Your task to perform on an android device: Go to ESPN.com Image 0: 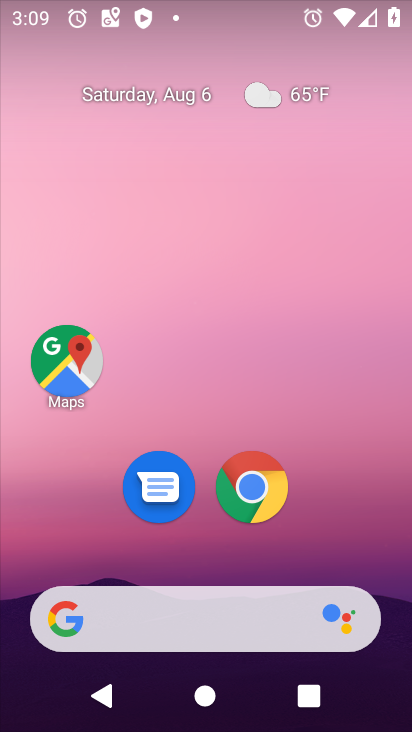
Step 0: drag from (235, 621) to (207, 25)
Your task to perform on an android device: Go to ESPN.com Image 1: 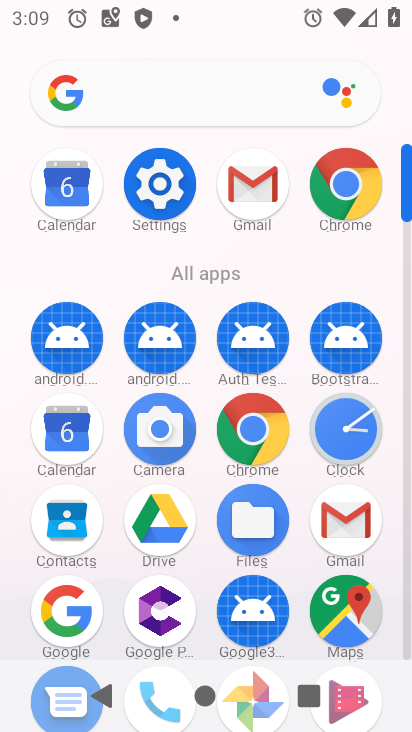
Step 1: click (348, 187)
Your task to perform on an android device: Go to ESPN.com Image 2: 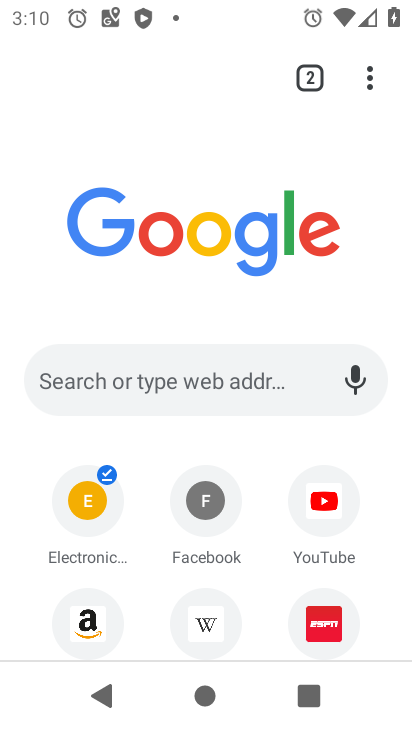
Step 2: click (307, 598)
Your task to perform on an android device: Go to ESPN.com Image 3: 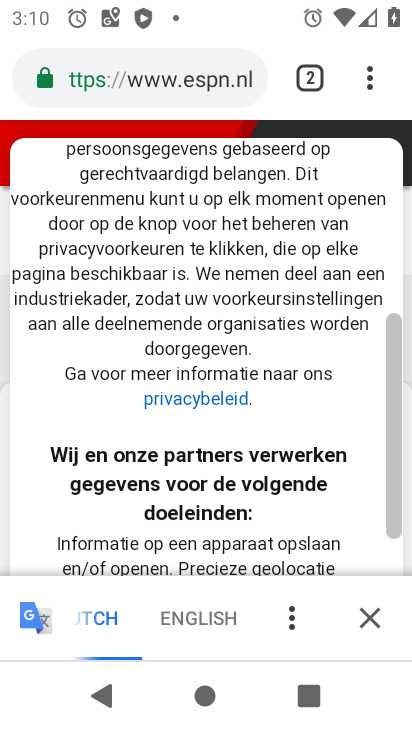
Step 3: task complete